Your task to perform on an android device: Open eBay Image 0: 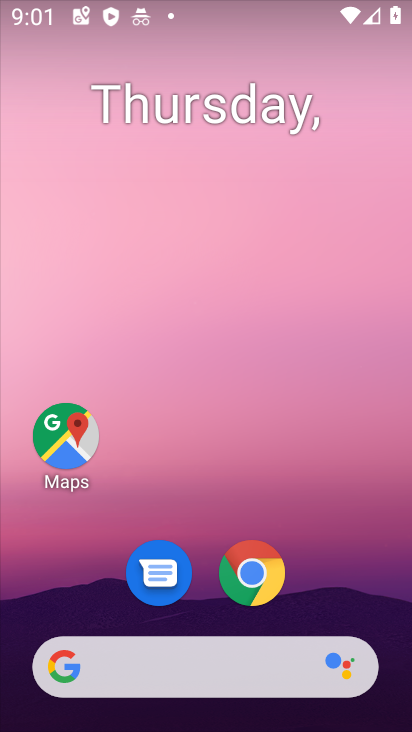
Step 0: drag from (376, 568) to (306, 159)
Your task to perform on an android device: Open eBay Image 1: 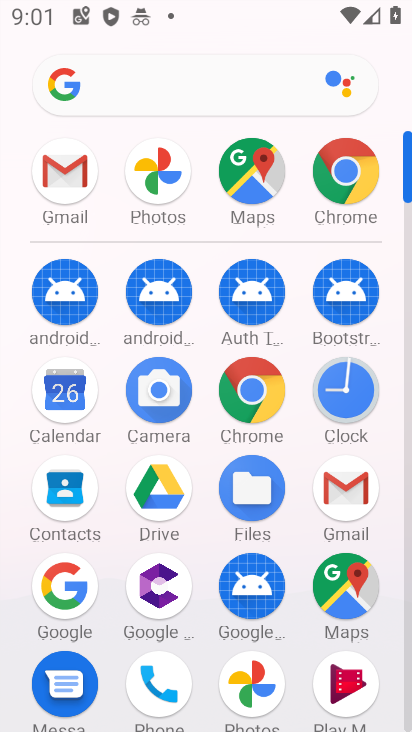
Step 1: click (247, 382)
Your task to perform on an android device: Open eBay Image 2: 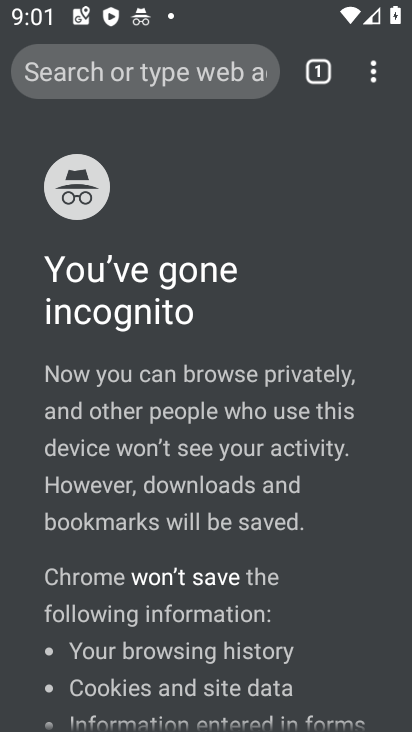
Step 2: click (176, 86)
Your task to perform on an android device: Open eBay Image 3: 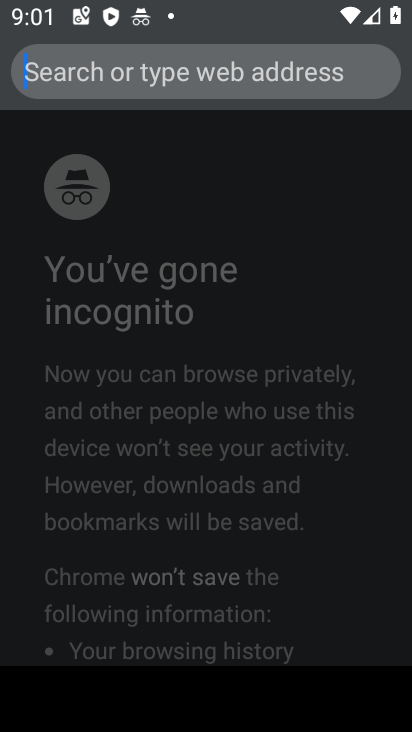
Step 3: type "ebay"
Your task to perform on an android device: Open eBay Image 4: 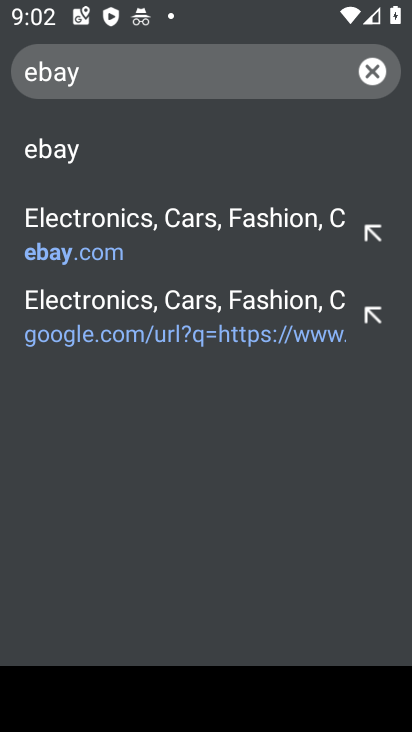
Step 4: click (192, 241)
Your task to perform on an android device: Open eBay Image 5: 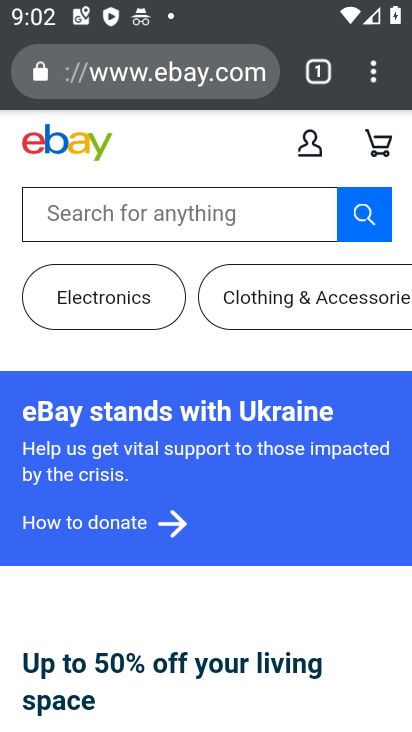
Step 5: task complete